Your task to perform on an android device: Open the calendar app Image 0: 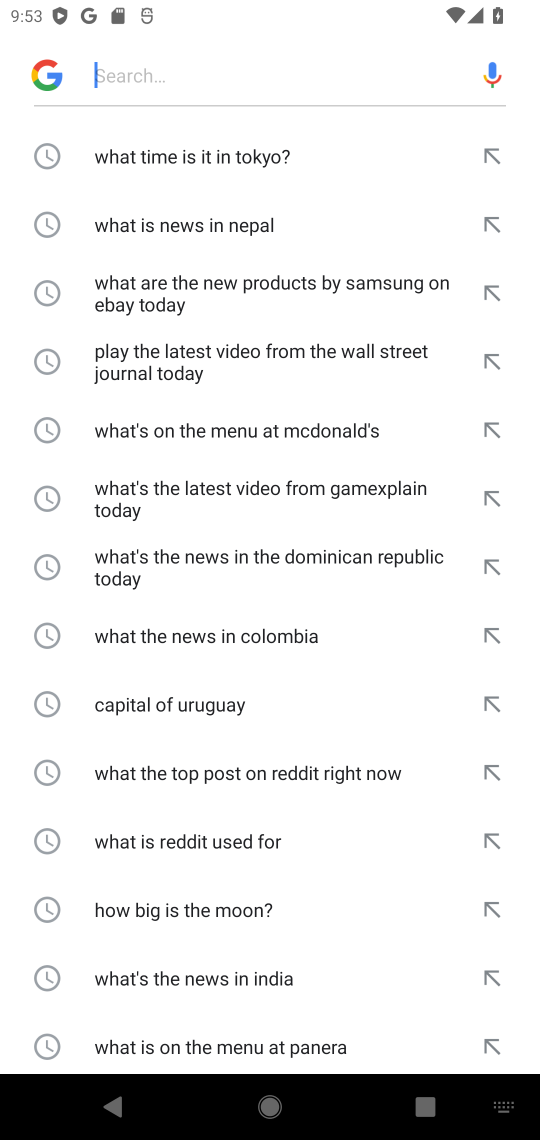
Step 0: press home button
Your task to perform on an android device: Open the calendar app Image 1: 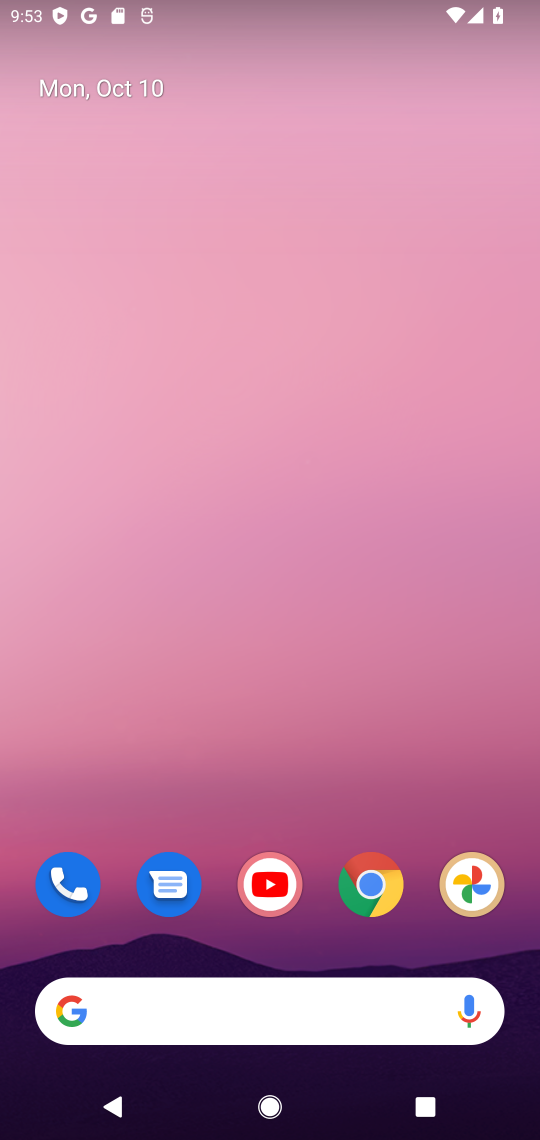
Step 1: drag from (283, 717) to (328, 37)
Your task to perform on an android device: Open the calendar app Image 2: 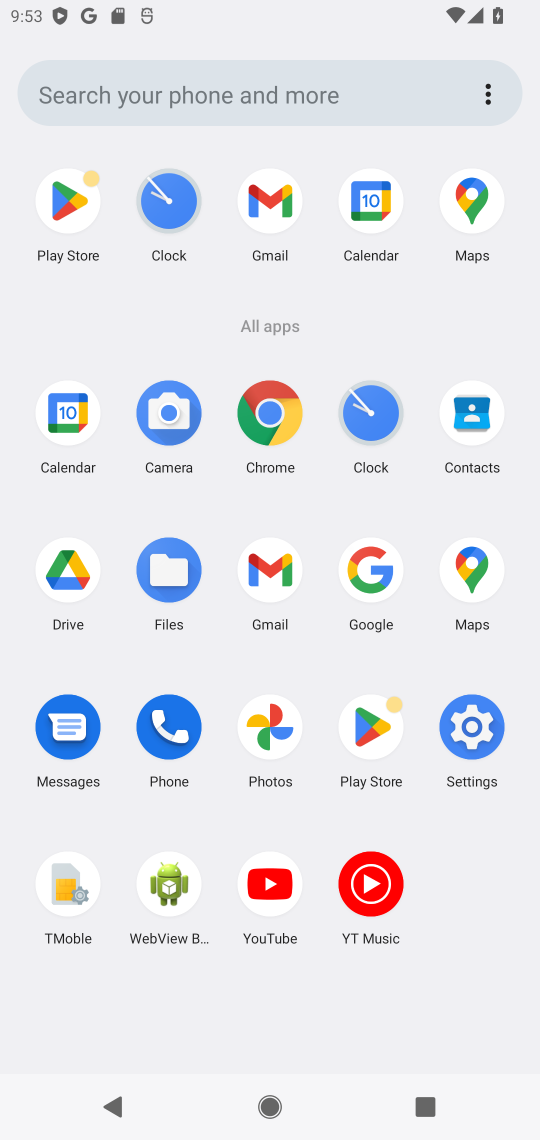
Step 2: click (60, 410)
Your task to perform on an android device: Open the calendar app Image 3: 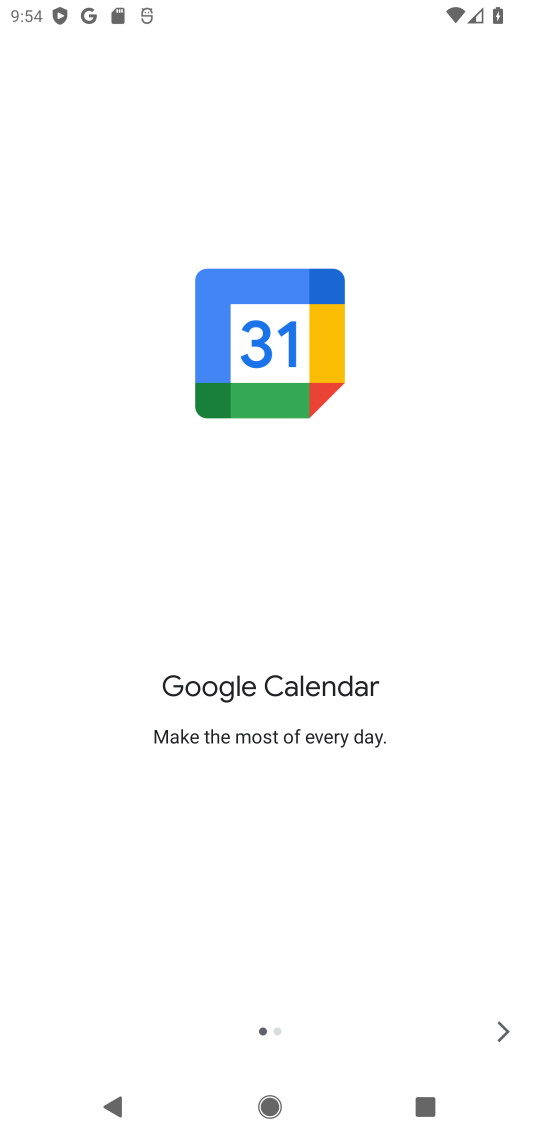
Step 3: click (512, 1019)
Your task to perform on an android device: Open the calendar app Image 4: 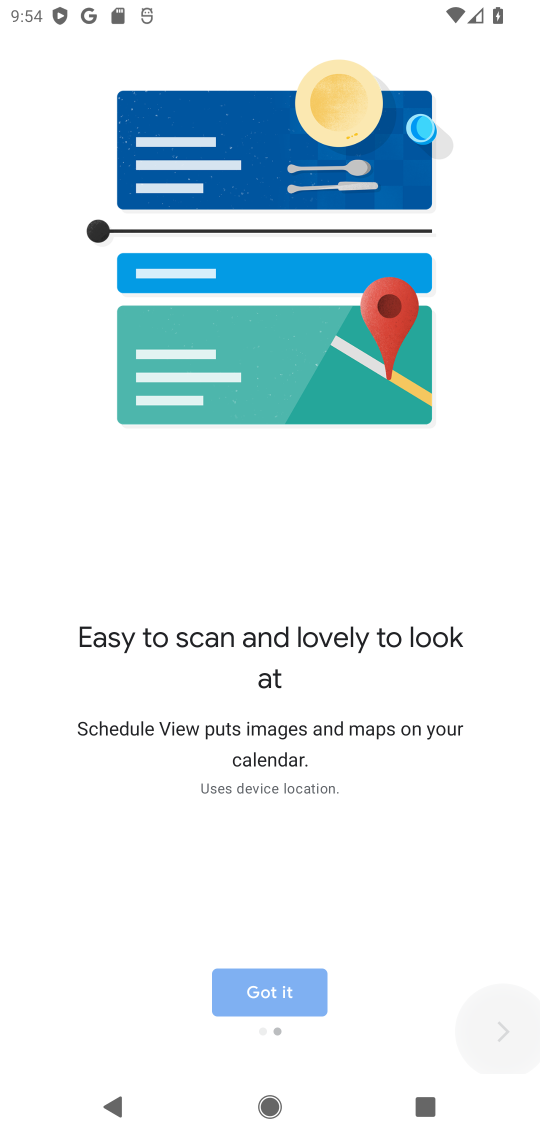
Step 4: click (509, 1027)
Your task to perform on an android device: Open the calendar app Image 5: 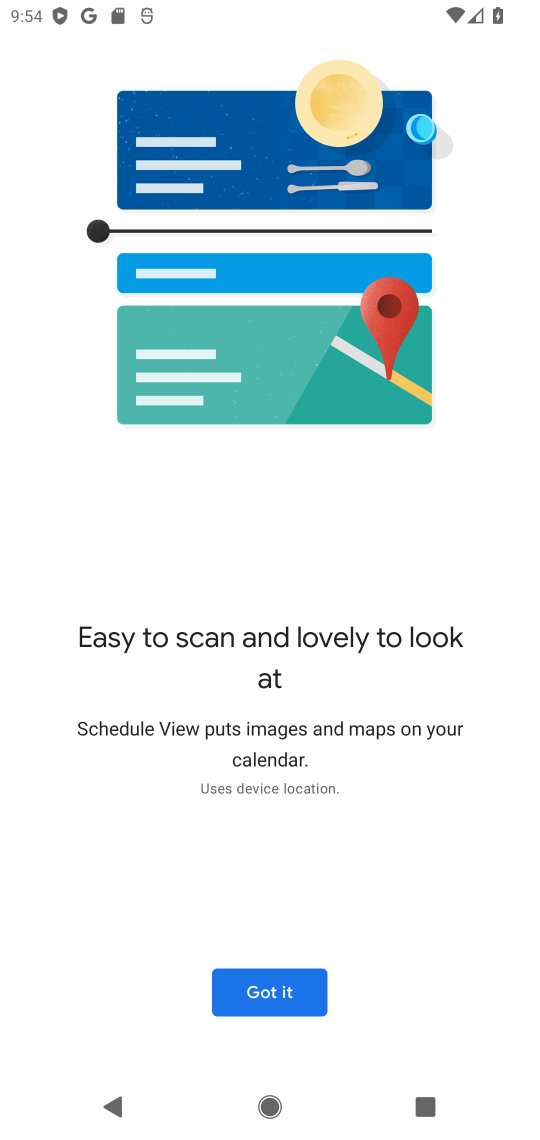
Step 5: click (297, 996)
Your task to perform on an android device: Open the calendar app Image 6: 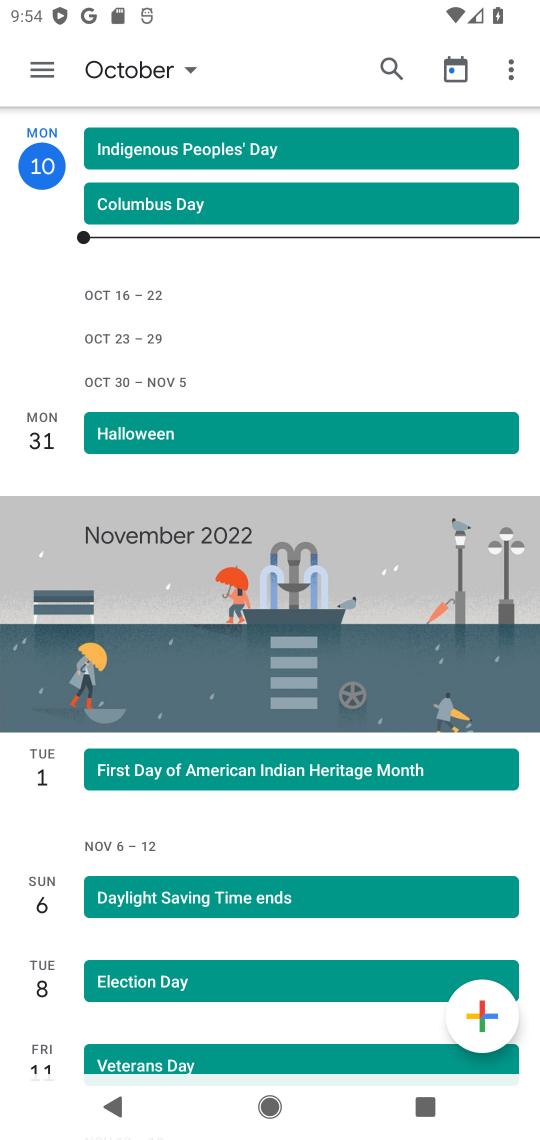
Step 6: task complete